Your task to perform on an android device: Is it going to rain tomorrow? Image 0: 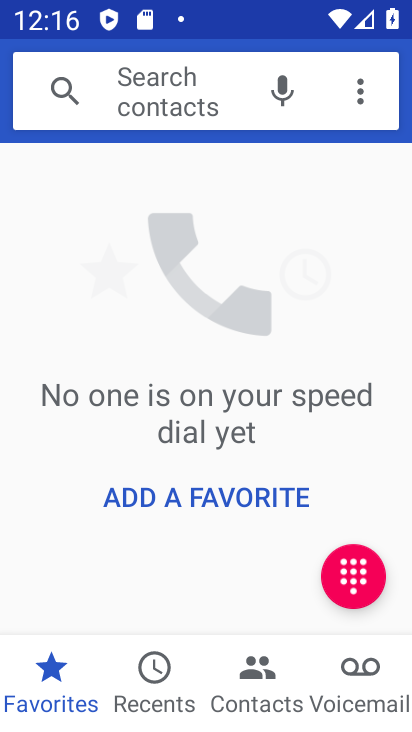
Step 0: press home button
Your task to perform on an android device: Is it going to rain tomorrow? Image 1: 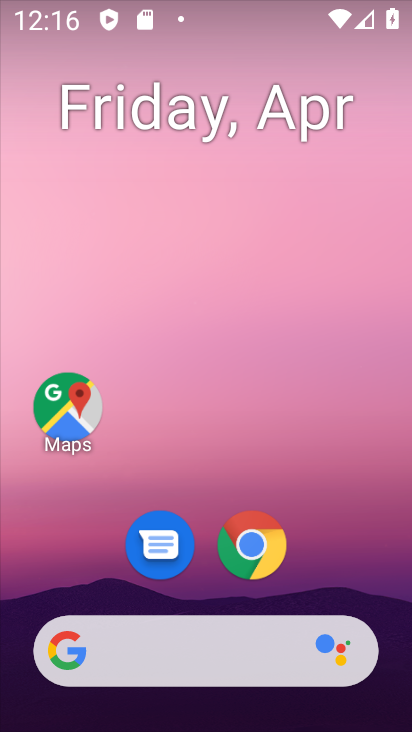
Step 1: click (128, 653)
Your task to perform on an android device: Is it going to rain tomorrow? Image 2: 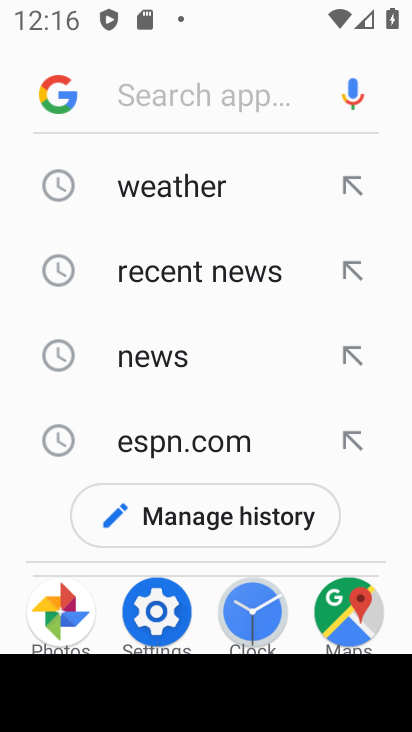
Step 2: click (174, 186)
Your task to perform on an android device: Is it going to rain tomorrow? Image 3: 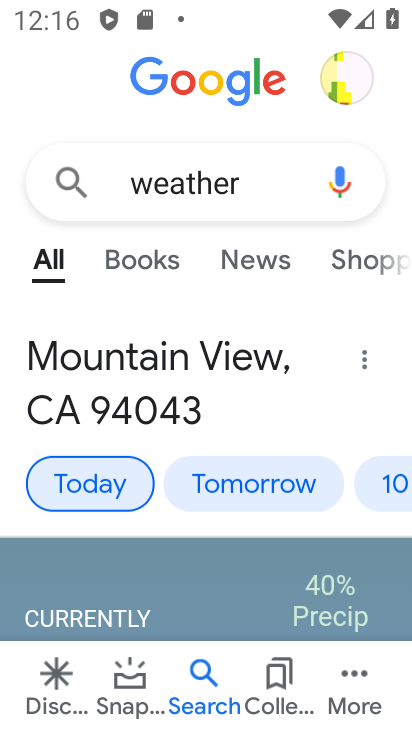
Step 3: click (265, 488)
Your task to perform on an android device: Is it going to rain tomorrow? Image 4: 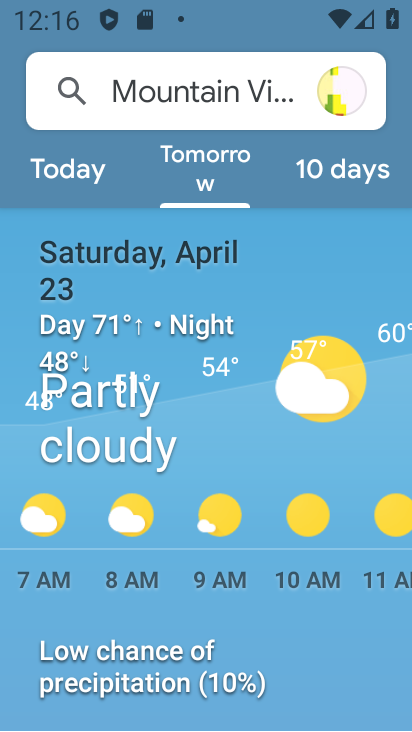
Step 4: task complete